Your task to perform on an android device: turn off notifications settings in the gmail app Image 0: 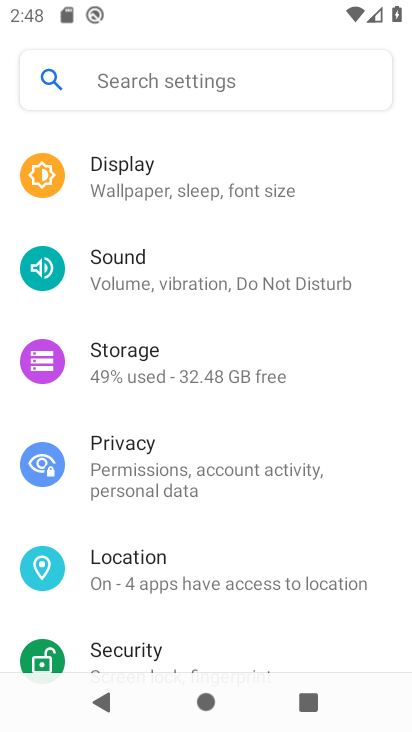
Step 0: press home button
Your task to perform on an android device: turn off notifications settings in the gmail app Image 1: 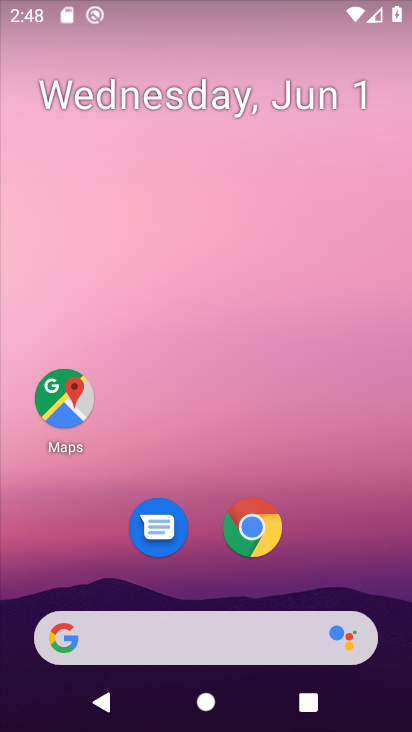
Step 1: drag from (194, 543) to (116, 5)
Your task to perform on an android device: turn off notifications settings in the gmail app Image 2: 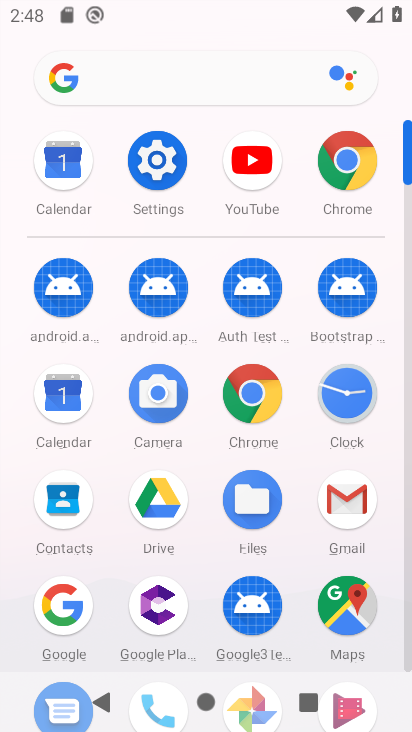
Step 2: click (364, 499)
Your task to perform on an android device: turn off notifications settings in the gmail app Image 3: 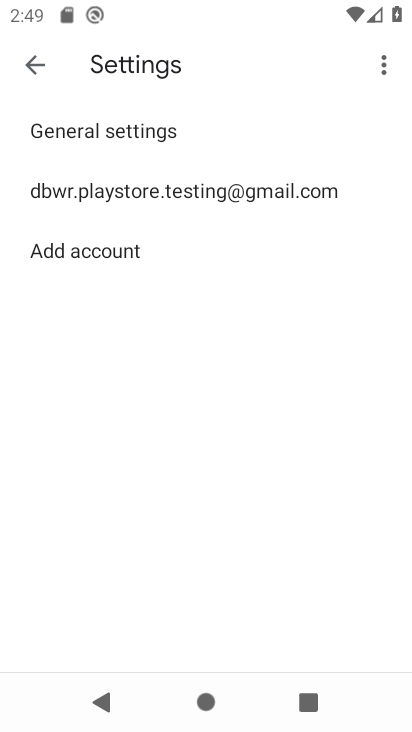
Step 3: click (140, 144)
Your task to perform on an android device: turn off notifications settings in the gmail app Image 4: 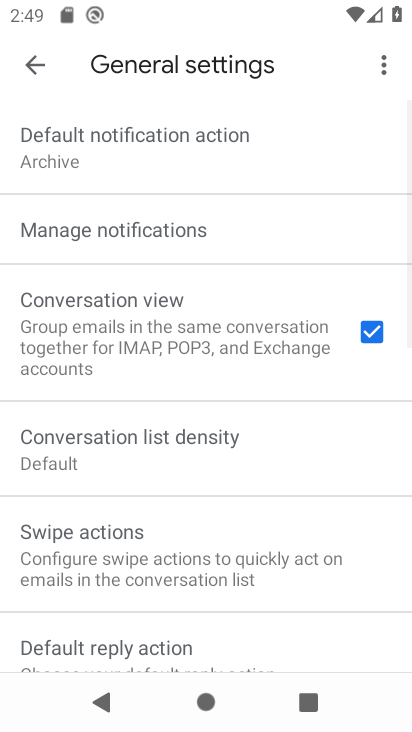
Step 4: click (140, 231)
Your task to perform on an android device: turn off notifications settings in the gmail app Image 5: 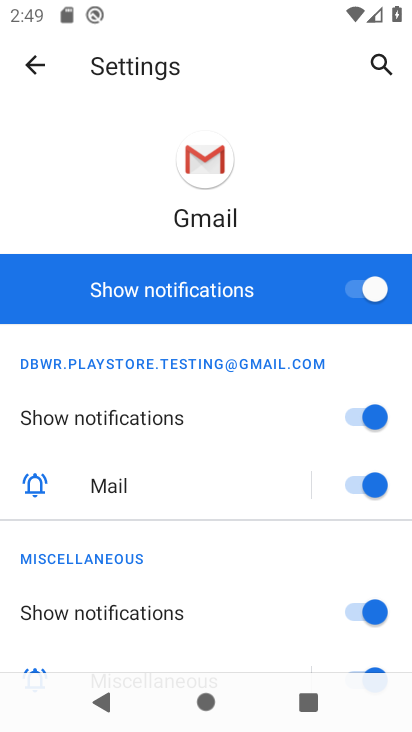
Step 5: click (339, 289)
Your task to perform on an android device: turn off notifications settings in the gmail app Image 6: 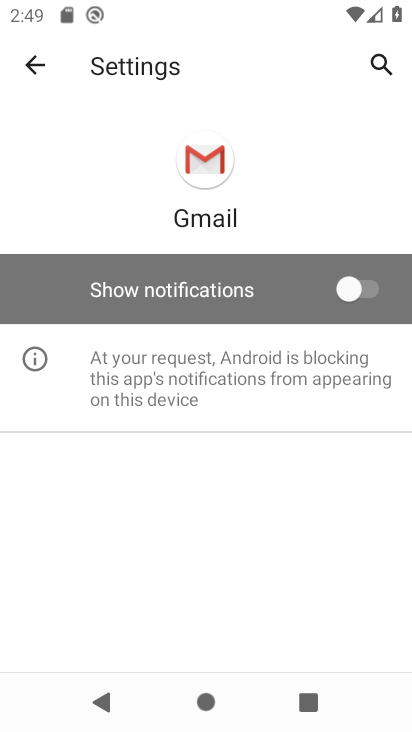
Step 6: task complete